Your task to perform on an android device: Search for Mexican restaurants on Maps Image 0: 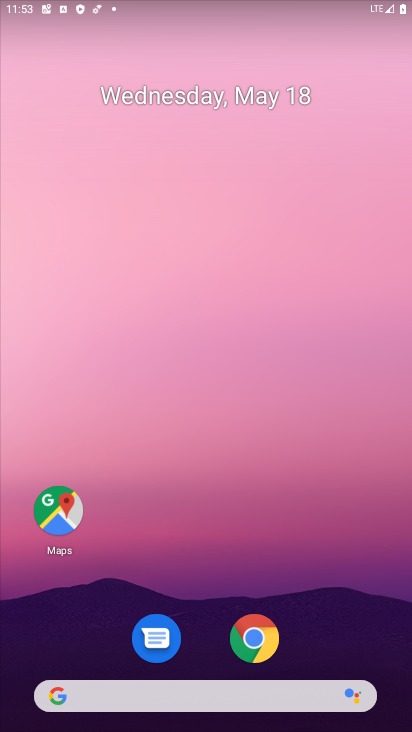
Step 0: drag from (380, 639) to (296, 116)
Your task to perform on an android device: Search for Mexican restaurants on Maps Image 1: 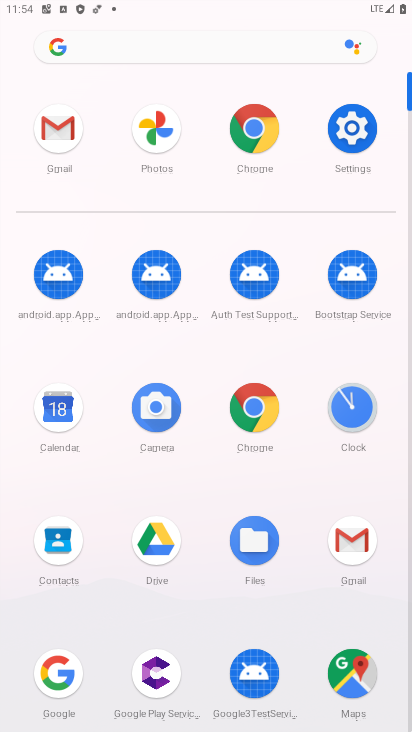
Step 1: click (371, 685)
Your task to perform on an android device: Search for Mexican restaurants on Maps Image 2: 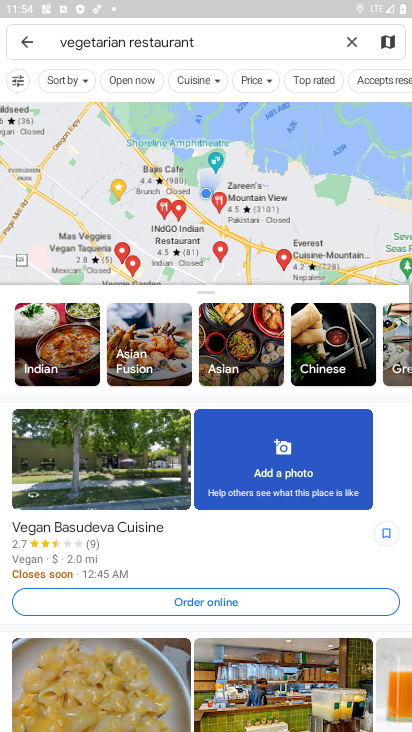
Step 2: click (357, 40)
Your task to perform on an android device: Search for Mexican restaurants on Maps Image 3: 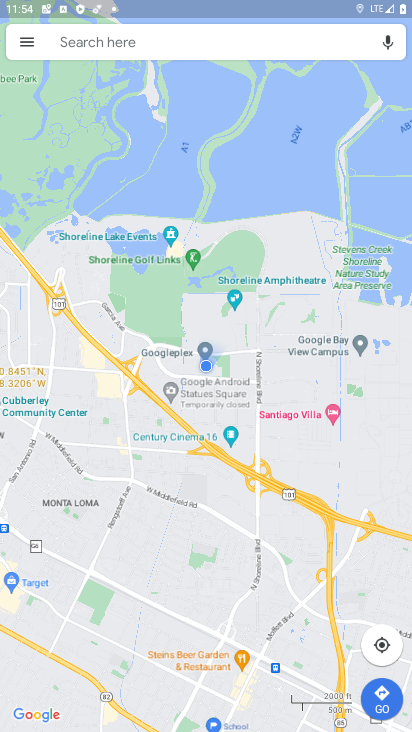
Step 3: click (134, 50)
Your task to perform on an android device: Search for Mexican restaurants on Maps Image 4: 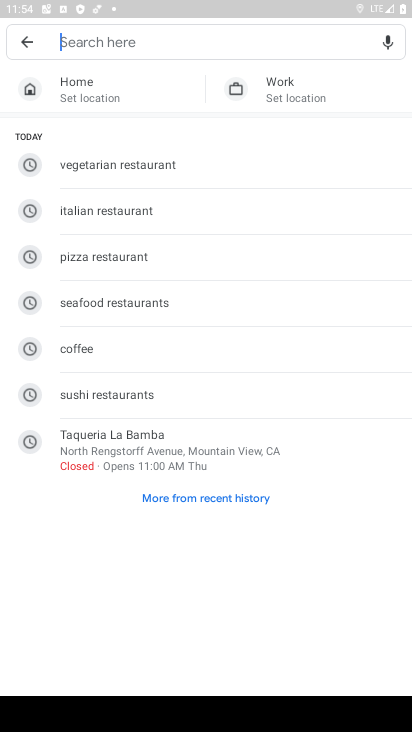
Step 4: type "mexican restaurants"
Your task to perform on an android device: Search for Mexican restaurants on Maps Image 5: 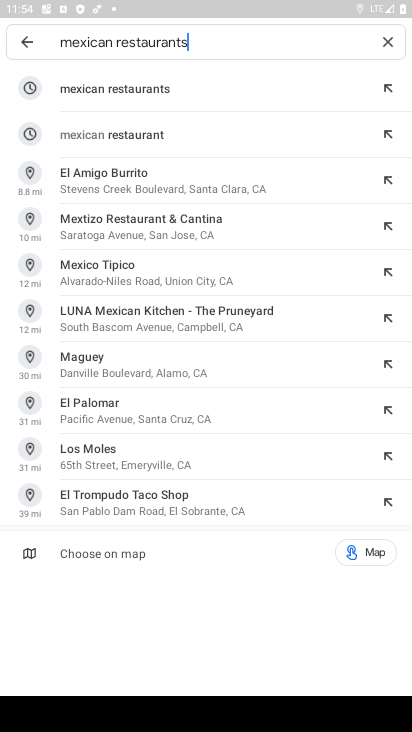
Step 5: click (154, 89)
Your task to perform on an android device: Search for Mexican restaurants on Maps Image 6: 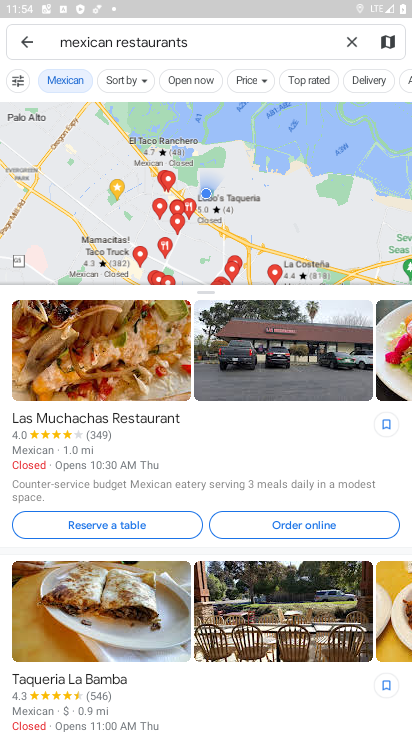
Step 6: task complete